Your task to perform on an android device: uninstall "DoorDash - Food Delivery" Image 0: 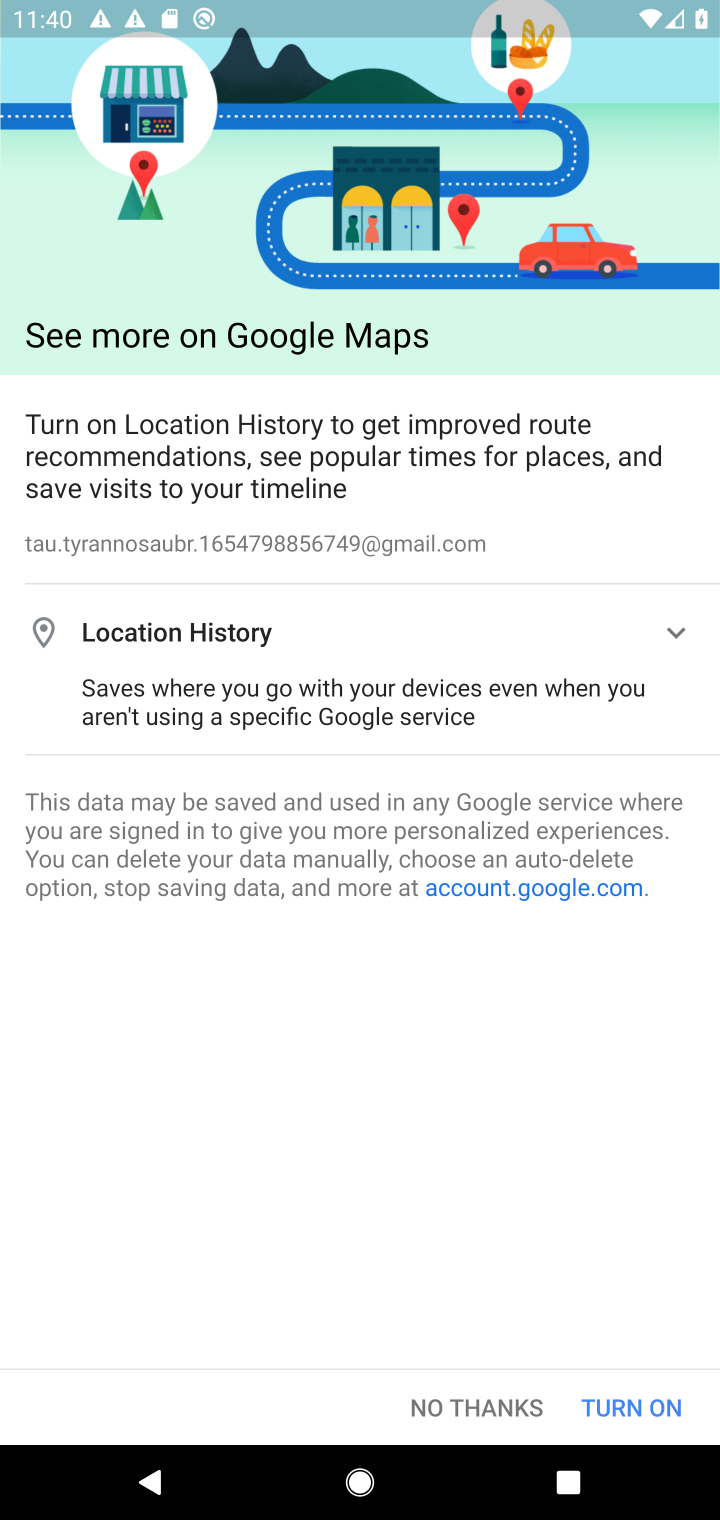
Step 0: press home button
Your task to perform on an android device: uninstall "DoorDash - Food Delivery" Image 1: 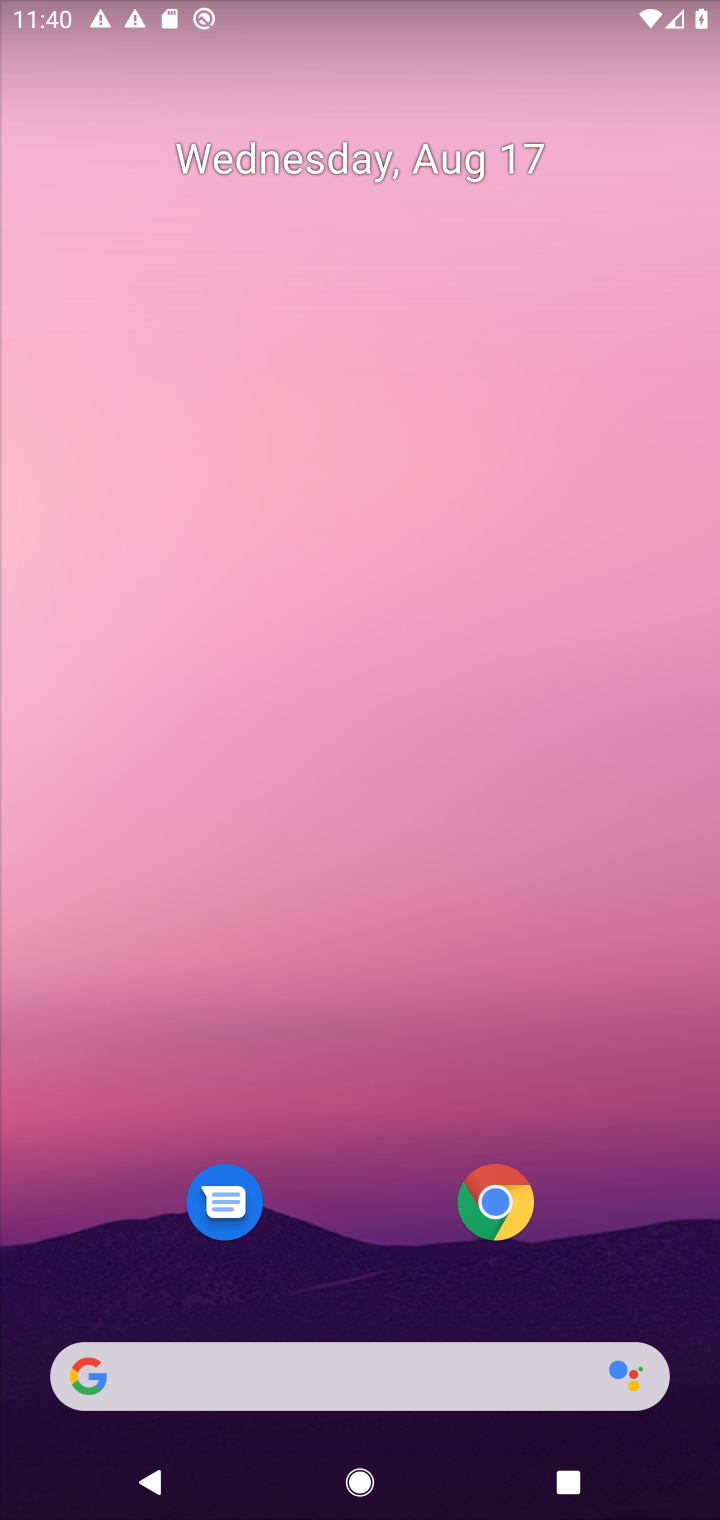
Step 1: drag from (336, 1321) to (586, 328)
Your task to perform on an android device: uninstall "DoorDash - Food Delivery" Image 2: 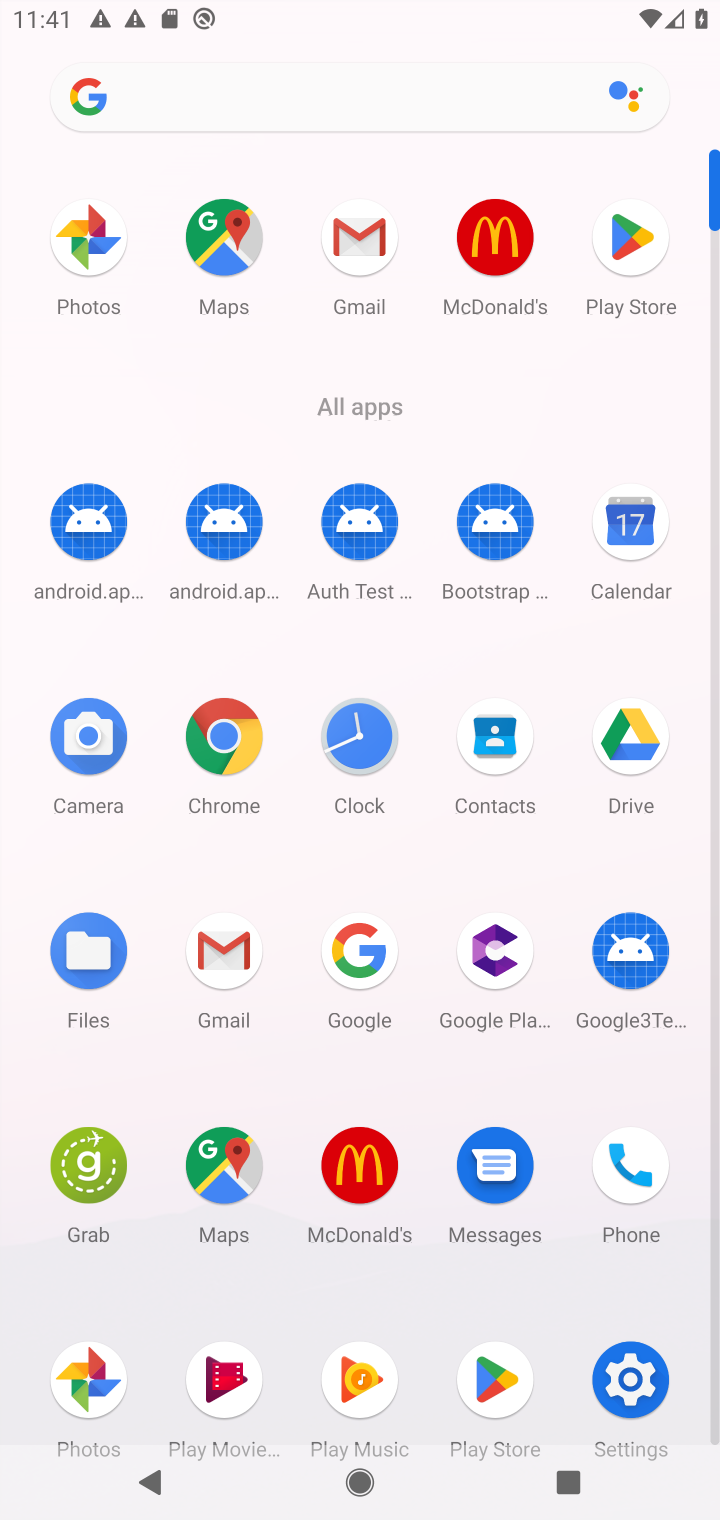
Step 2: click (479, 1387)
Your task to perform on an android device: uninstall "DoorDash - Food Delivery" Image 3: 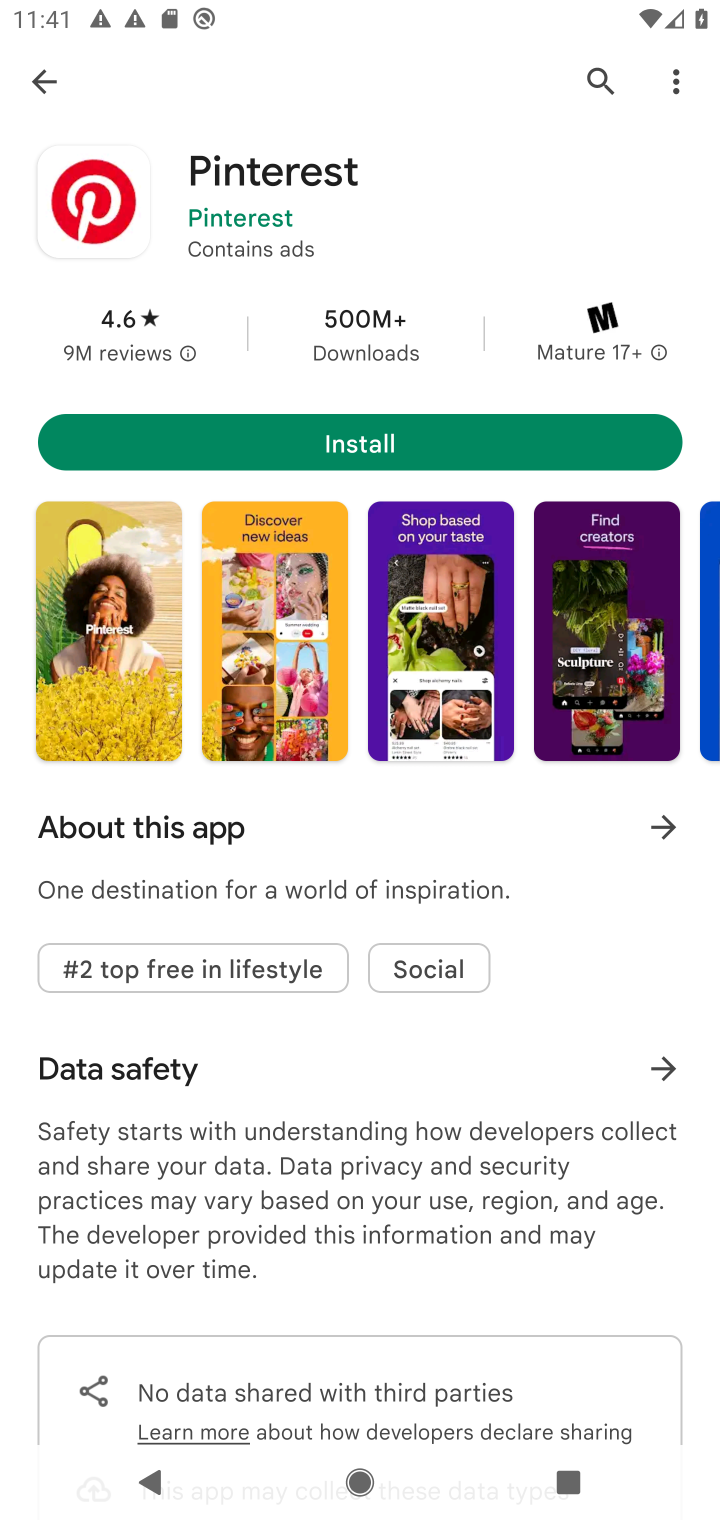
Step 3: click (46, 79)
Your task to perform on an android device: uninstall "DoorDash - Food Delivery" Image 4: 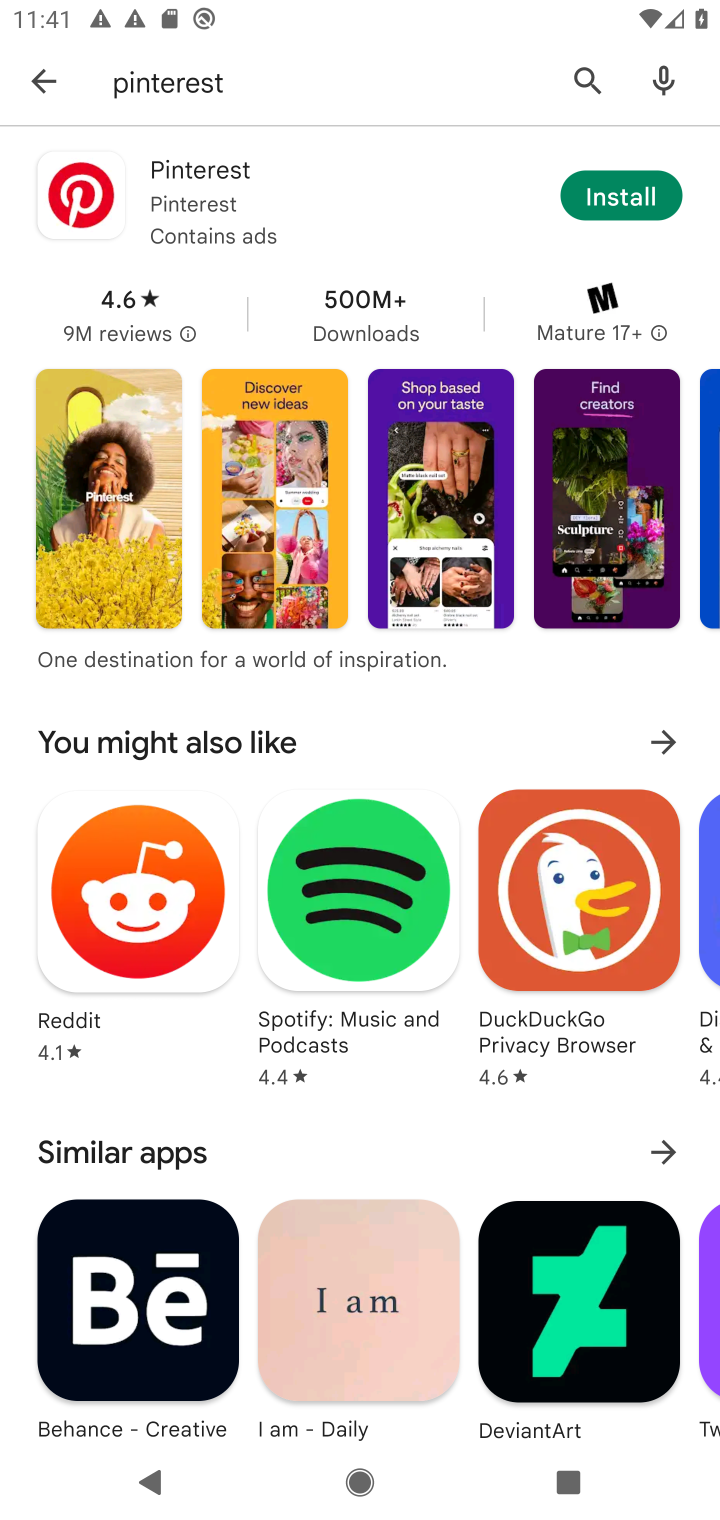
Step 4: click (594, 60)
Your task to perform on an android device: uninstall "DoorDash - Food Delivery" Image 5: 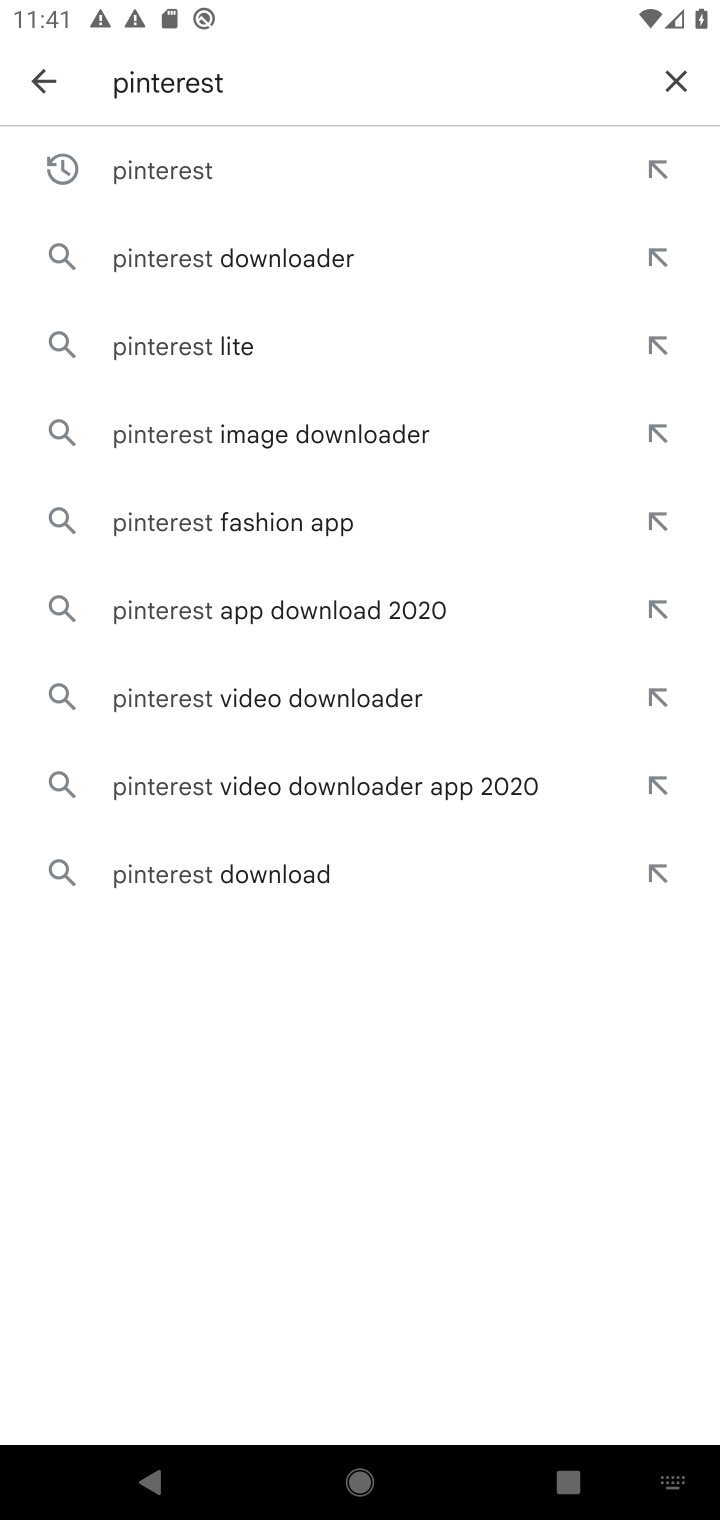
Step 5: click (683, 65)
Your task to perform on an android device: uninstall "DoorDash - Food Delivery" Image 6: 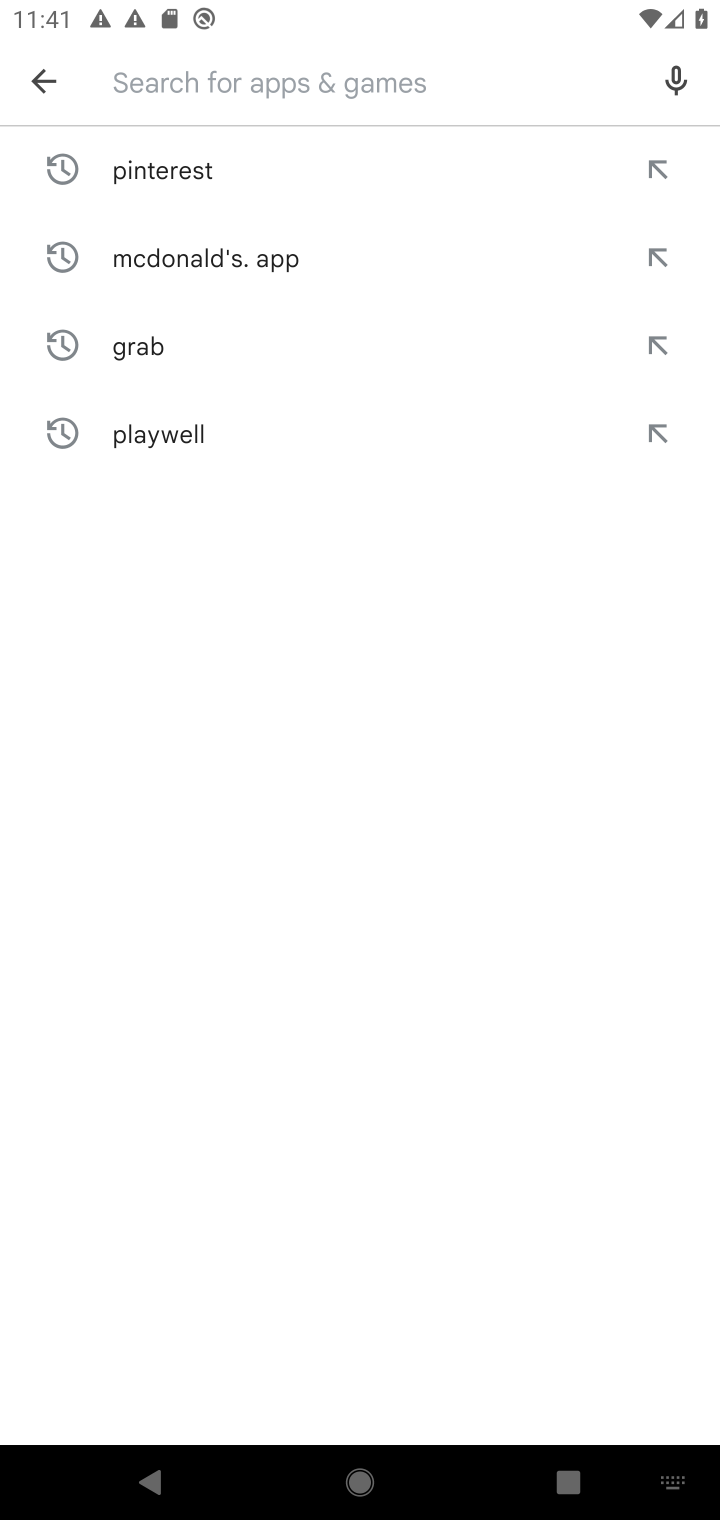
Step 6: type "DoorDash - Food Delivery"
Your task to perform on an android device: uninstall "DoorDash - Food Delivery" Image 7: 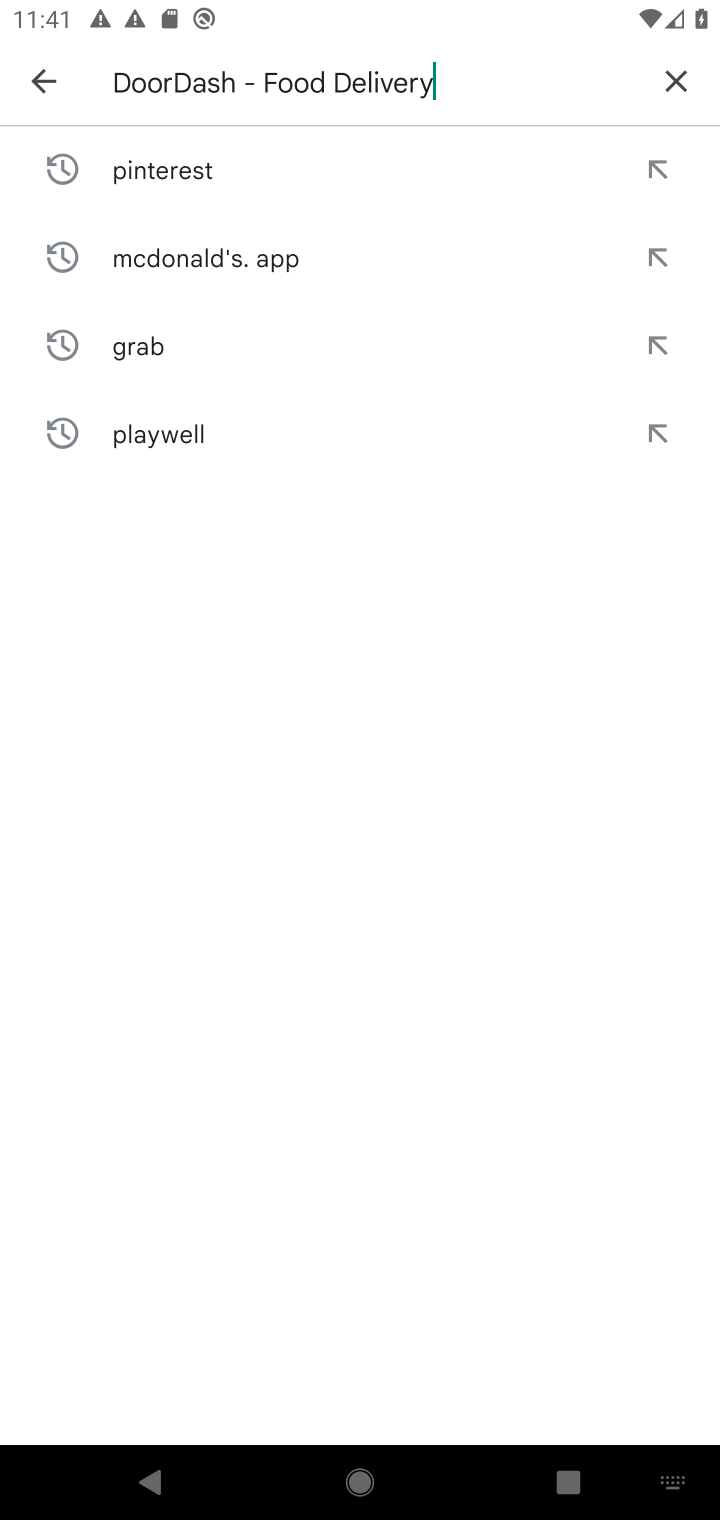
Step 7: type ""
Your task to perform on an android device: uninstall "DoorDash - Food Delivery" Image 8: 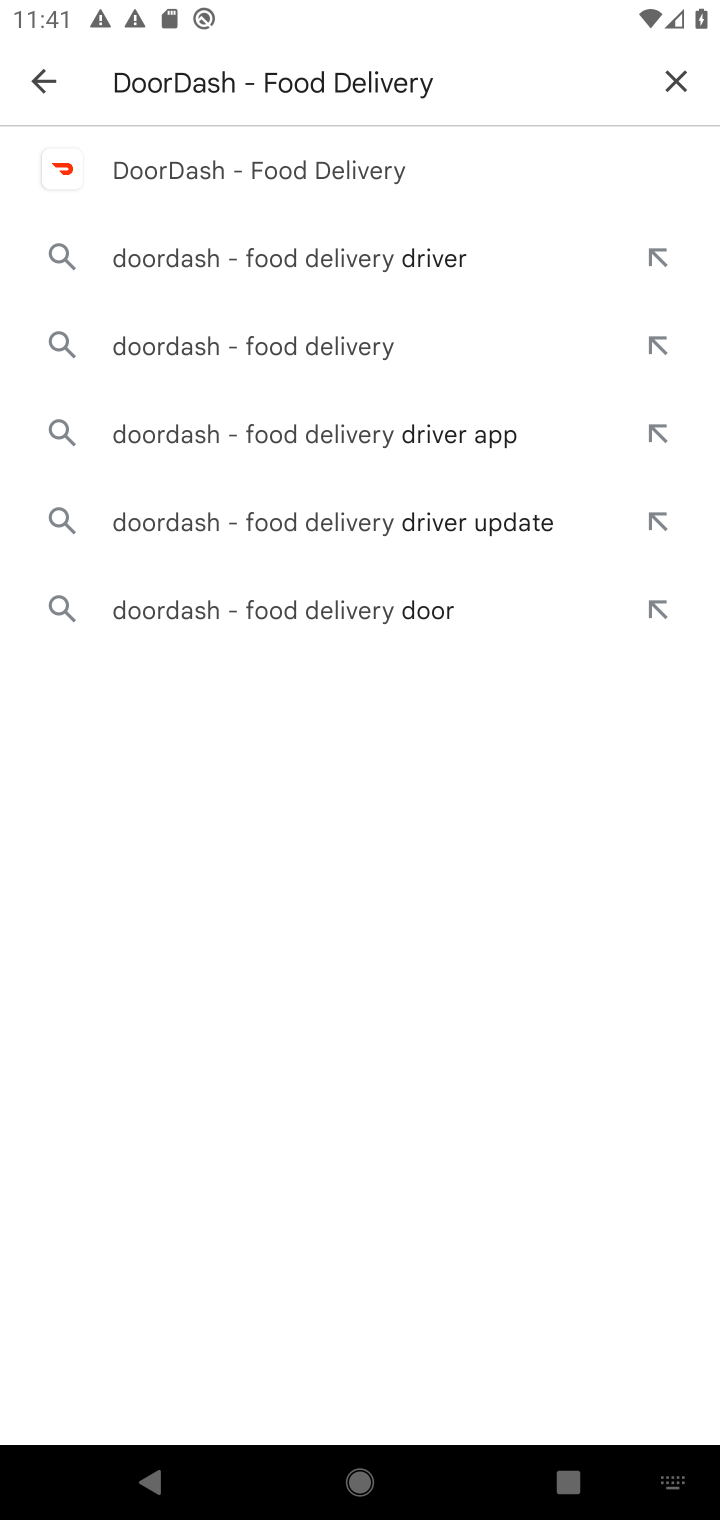
Step 8: click (183, 169)
Your task to perform on an android device: uninstall "DoorDash - Food Delivery" Image 9: 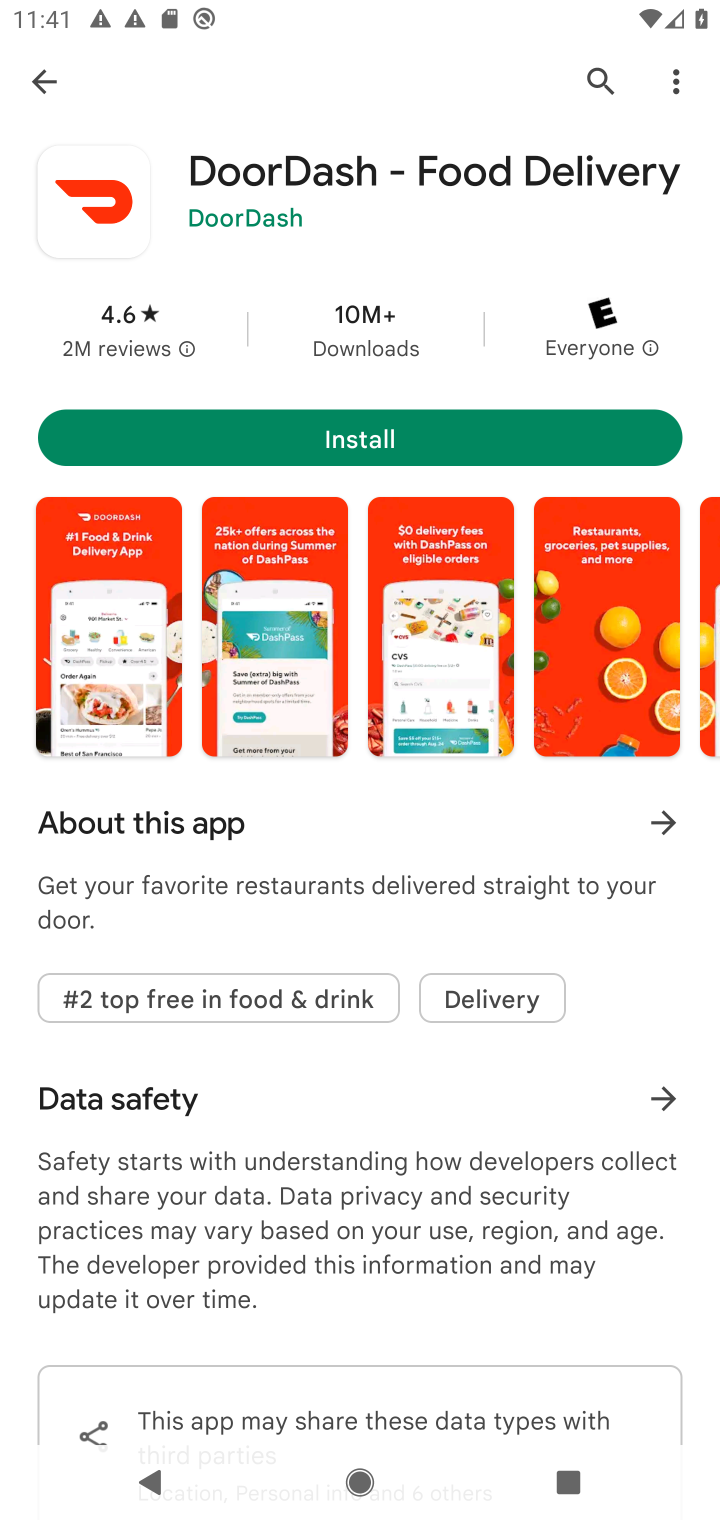
Step 9: task complete